Your task to perform on an android device: open app "Paramount+ | Peak Streaming" (install if not already installed), go to login, and select forgot password Image 0: 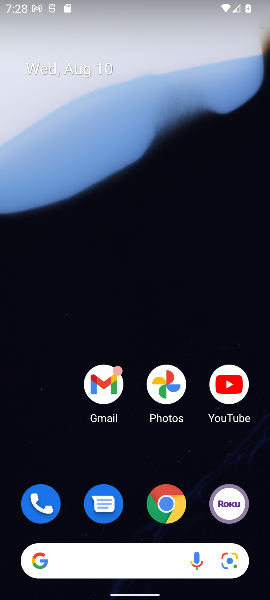
Step 0: drag from (152, 500) to (155, 7)
Your task to perform on an android device: open app "Paramount+ | Peak Streaming" (install if not already installed), go to login, and select forgot password Image 1: 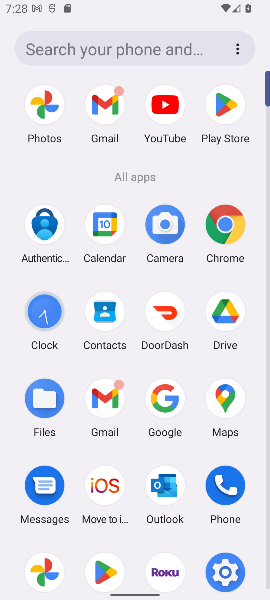
Step 1: click (110, 565)
Your task to perform on an android device: open app "Paramount+ | Peak Streaming" (install if not already installed), go to login, and select forgot password Image 2: 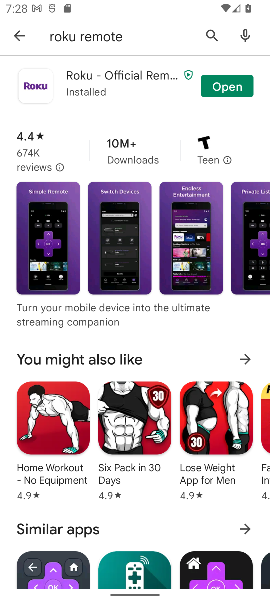
Step 2: click (213, 35)
Your task to perform on an android device: open app "Paramount+ | Peak Streaming" (install if not already installed), go to login, and select forgot password Image 3: 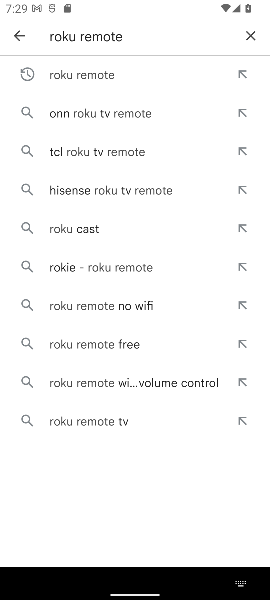
Step 3: click (248, 34)
Your task to perform on an android device: open app "Paramount+ | Peak Streaming" (install if not already installed), go to login, and select forgot password Image 4: 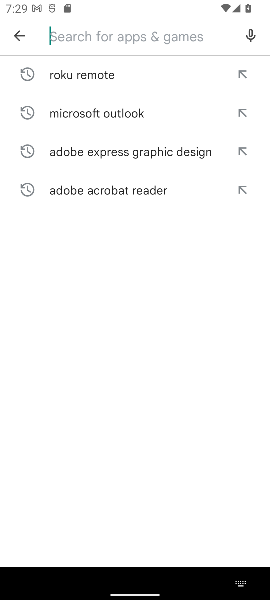
Step 4: type "Paramount+ | Peak Streaming"
Your task to perform on an android device: open app "Paramount+ | Peak Streaming" (install if not already installed), go to login, and select forgot password Image 5: 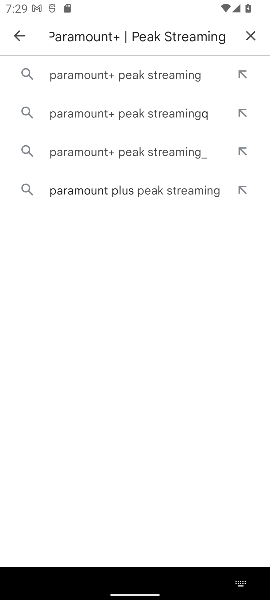
Step 5: click (163, 85)
Your task to perform on an android device: open app "Paramount+ | Peak Streaming" (install if not already installed), go to login, and select forgot password Image 6: 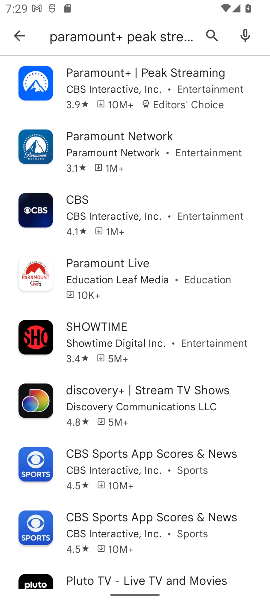
Step 6: click (152, 85)
Your task to perform on an android device: open app "Paramount+ | Peak Streaming" (install if not already installed), go to login, and select forgot password Image 7: 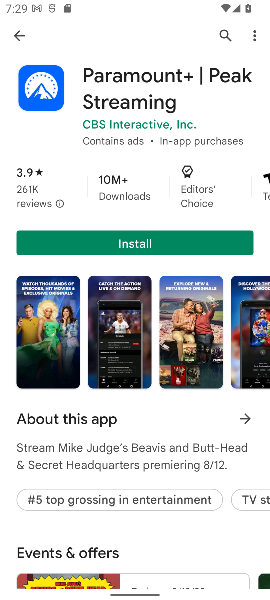
Step 7: click (172, 249)
Your task to perform on an android device: open app "Paramount+ | Peak Streaming" (install if not already installed), go to login, and select forgot password Image 8: 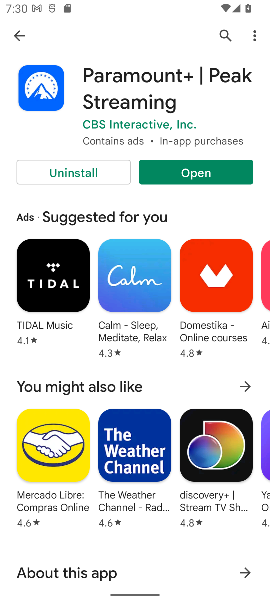
Step 8: click (191, 177)
Your task to perform on an android device: open app "Paramount+ | Peak Streaming" (install if not already installed), go to login, and select forgot password Image 9: 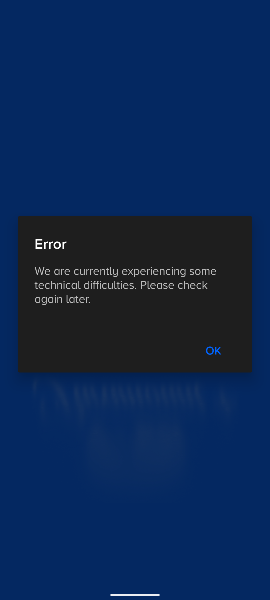
Step 9: click (219, 347)
Your task to perform on an android device: open app "Paramount+ | Peak Streaming" (install if not already installed), go to login, and select forgot password Image 10: 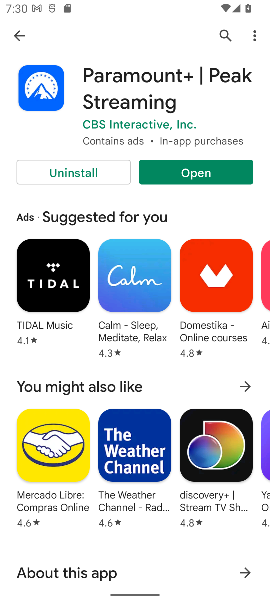
Step 10: task complete